Your task to perform on an android device: turn off translation in the chrome app Image 0: 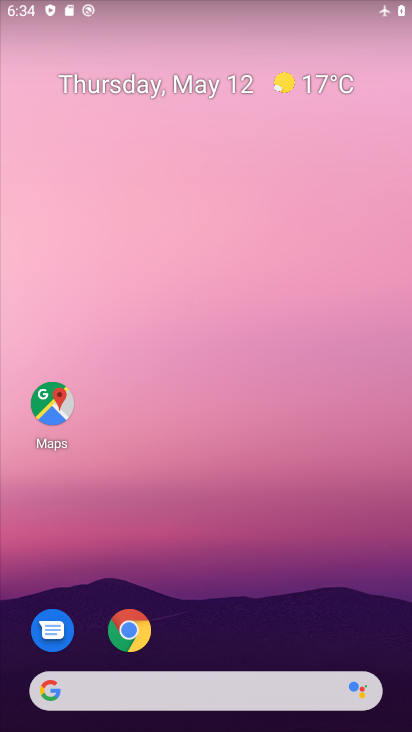
Step 0: drag from (301, 611) to (216, 64)
Your task to perform on an android device: turn off translation in the chrome app Image 1: 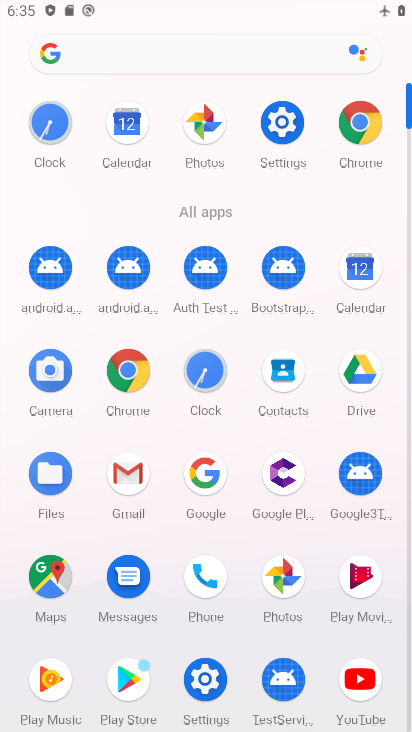
Step 1: click (114, 392)
Your task to perform on an android device: turn off translation in the chrome app Image 2: 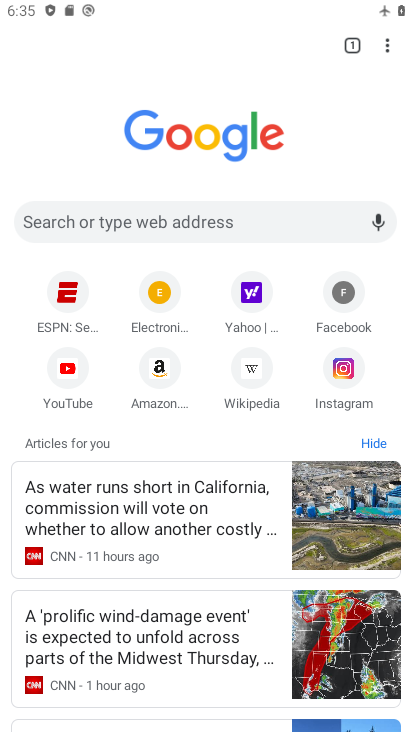
Step 2: click (389, 43)
Your task to perform on an android device: turn off translation in the chrome app Image 3: 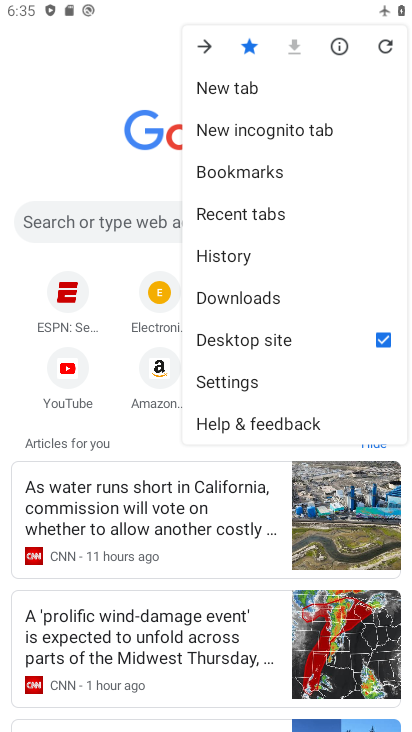
Step 3: click (256, 387)
Your task to perform on an android device: turn off translation in the chrome app Image 4: 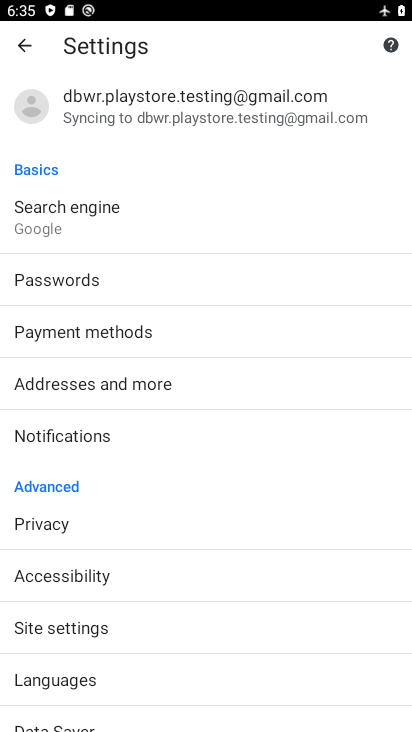
Step 4: click (125, 669)
Your task to perform on an android device: turn off translation in the chrome app Image 5: 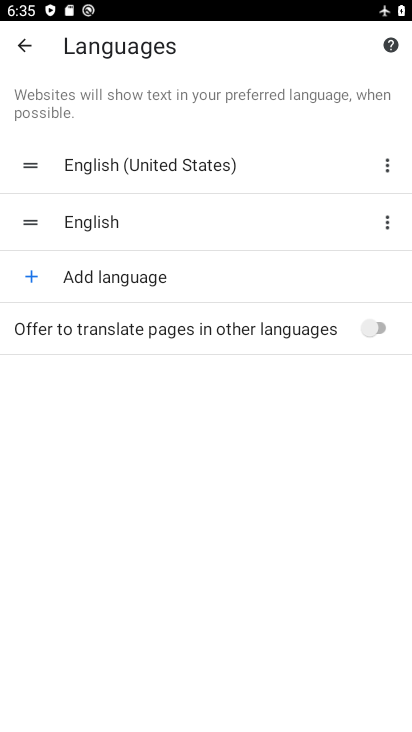
Step 5: task complete